Your task to perform on an android device: Open wifi settings Image 0: 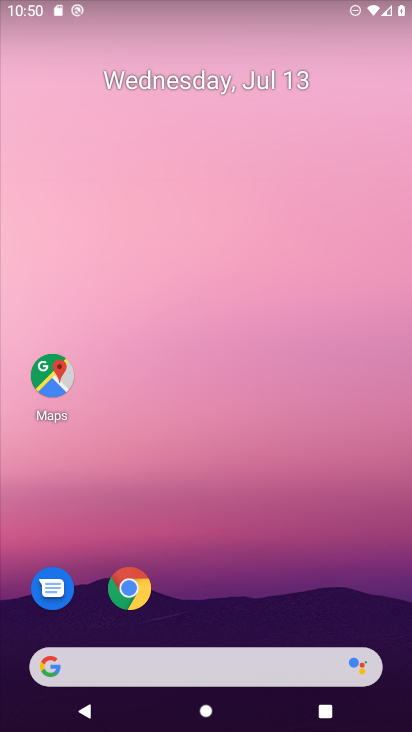
Step 0: drag from (229, 621) to (228, 1)
Your task to perform on an android device: Open wifi settings Image 1: 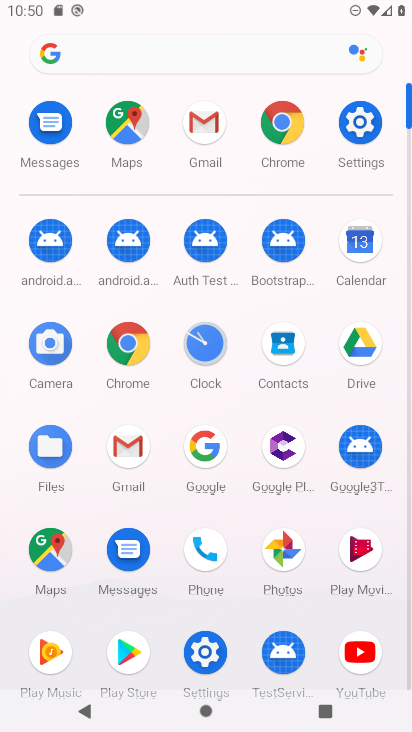
Step 1: click (364, 125)
Your task to perform on an android device: Open wifi settings Image 2: 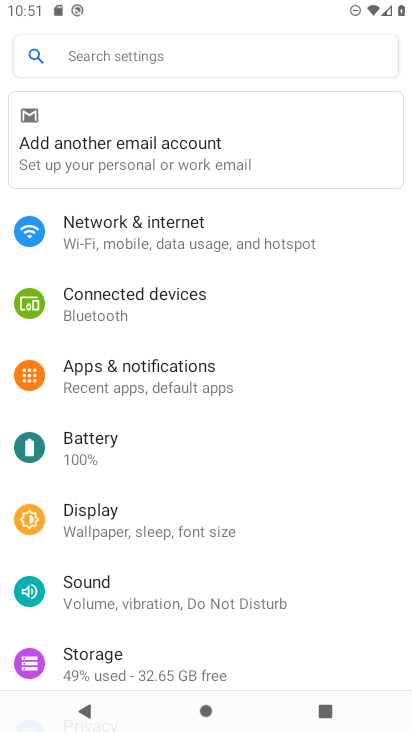
Step 2: click (154, 225)
Your task to perform on an android device: Open wifi settings Image 3: 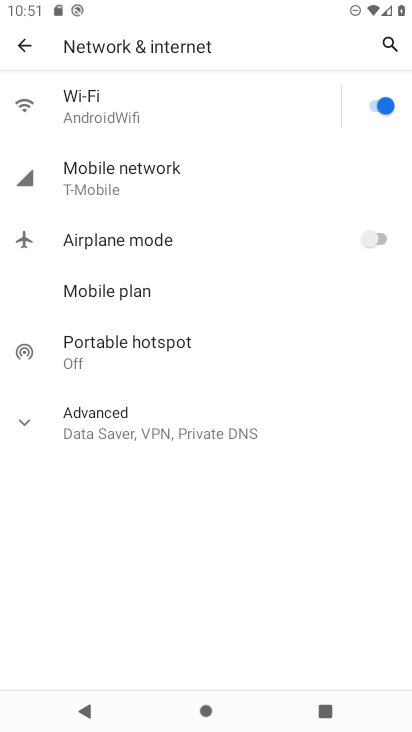
Step 3: click (129, 93)
Your task to perform on an android device: Open wifi settings Image 4: 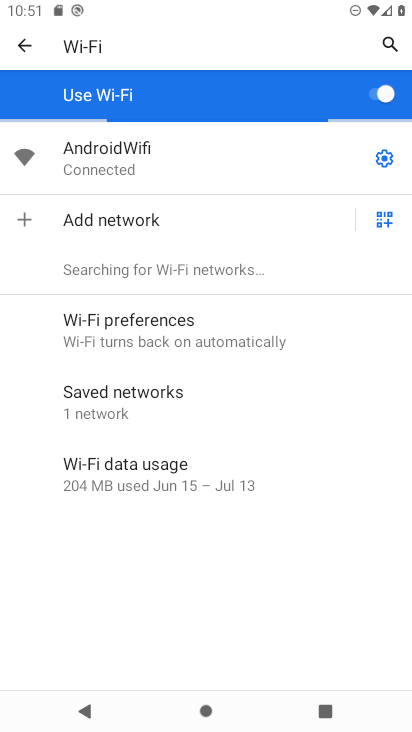
Step 4: task complete